Your task to perform on an android device: Set the phone to "Do not disturb". Image 0: 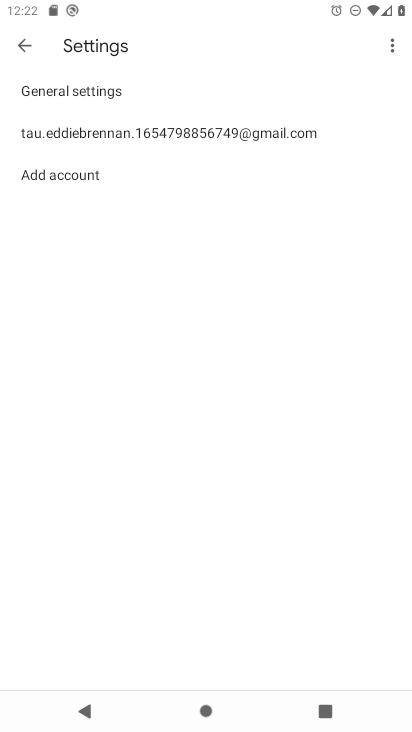
Step 0: press home button
Your task to perform on an android device: Set the phone to "Do not disturb". Image 1: 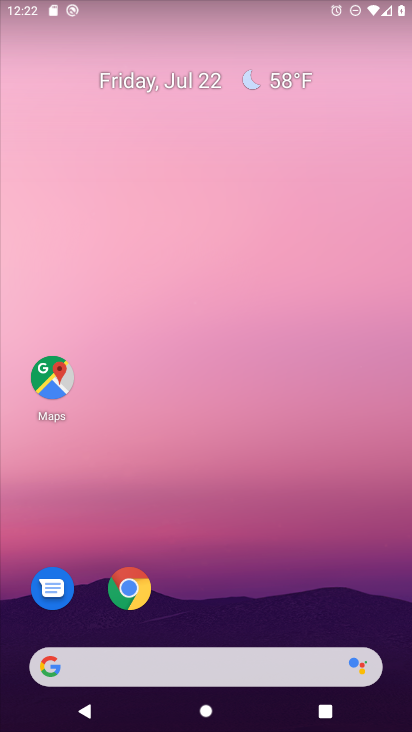
Step 1: drag from (315, 544) to (277, 12)
Your task to perform on an android device: Set the phone to "Do not disturb". Image 2: 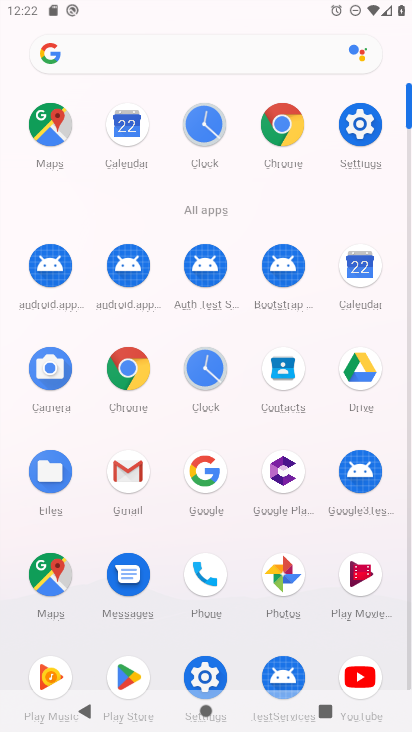
Step 2: click (354, 140)
Your task to perform on an android device: Set the phone to "Do not disturb". Image 3: 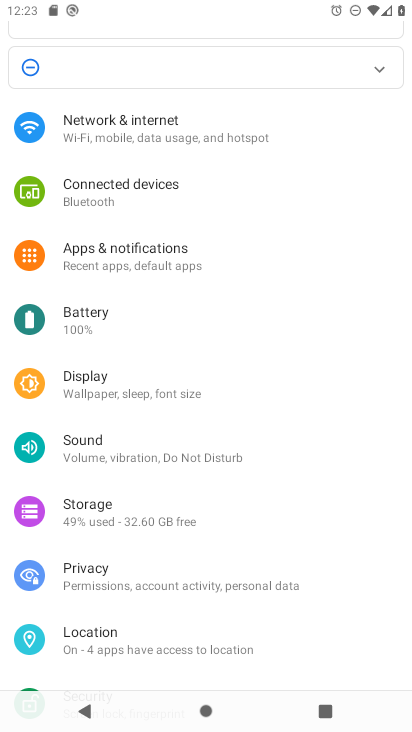
Step 3: click (184, 444)
Your task to perform on an android device: Set the phone to "Do not disturb". Image 4: 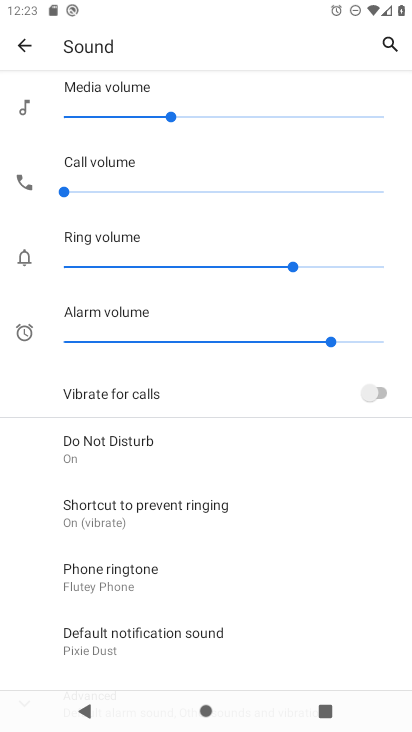
Step 4: click (120, 423)
Your task to perform on an android device: Set the phone to "Do not disturb". Image 5: 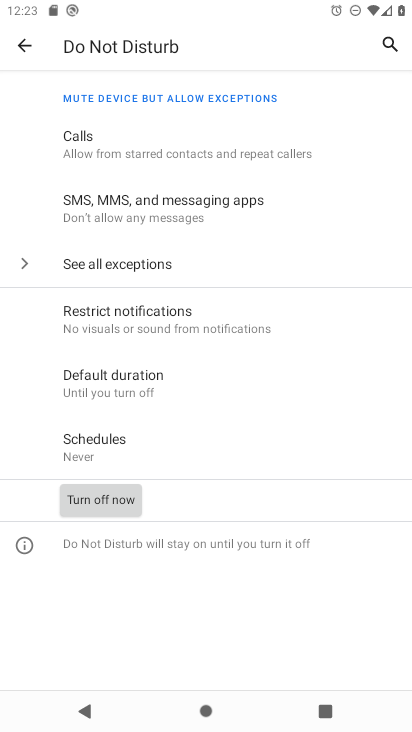
Step 5: task complete